Your task to perform on an android device: check google app version Image 0: 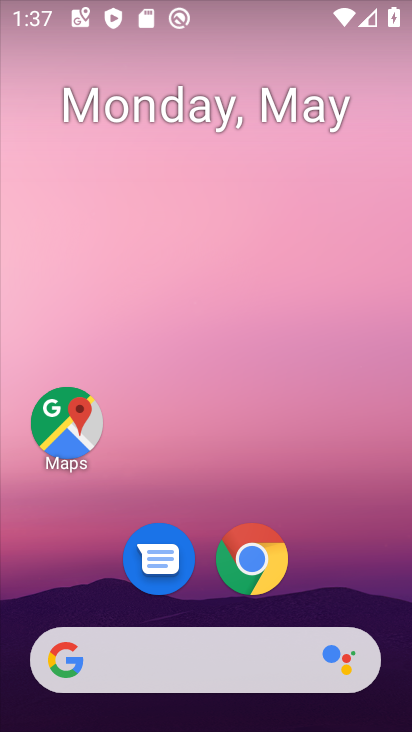
Step 0: drag from (337, 595) to (309, 134)
Your task to perform on an android device: check google app version Image 1: 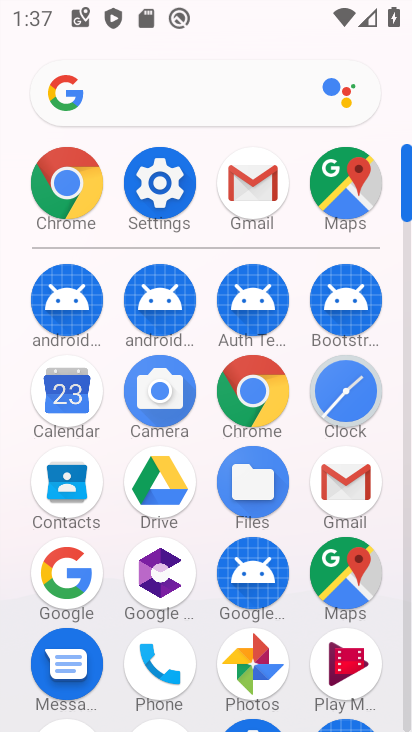
Step 1: click (73, 584)
Your task to perform on an android device: check google app version Image 2: 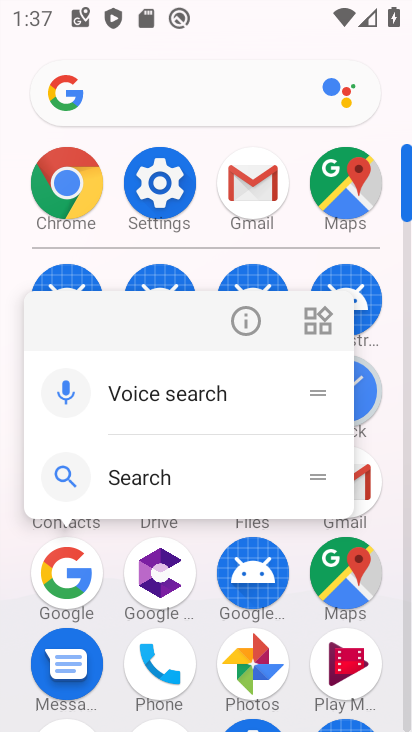
Step 2: click (250, 323)
Your task to perform on an android device: check google app version Image 3: 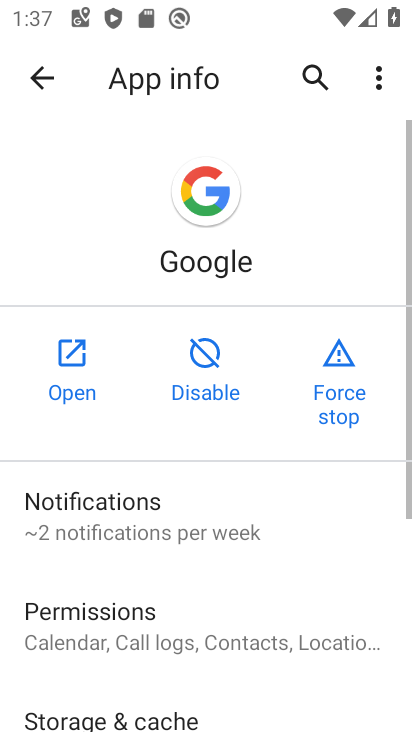
Step 3: drag from (203, 624) to (210, 56)
Your task to perform on an android device: check google app version Image 4: 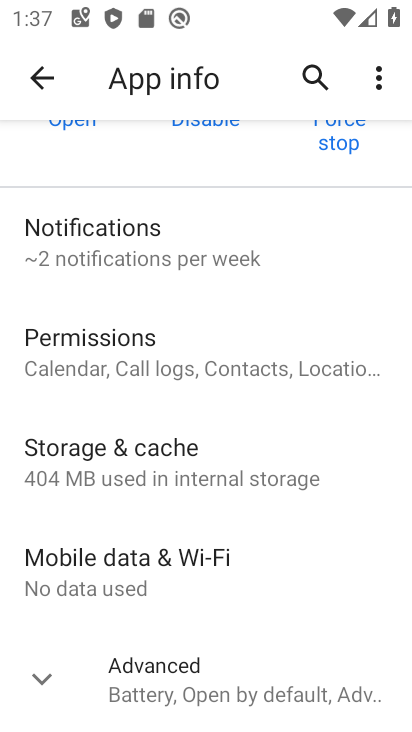
Step 4: drag from (196, 560) to (191, 191)
Your task to perform on an android device: check google app version Image 5: 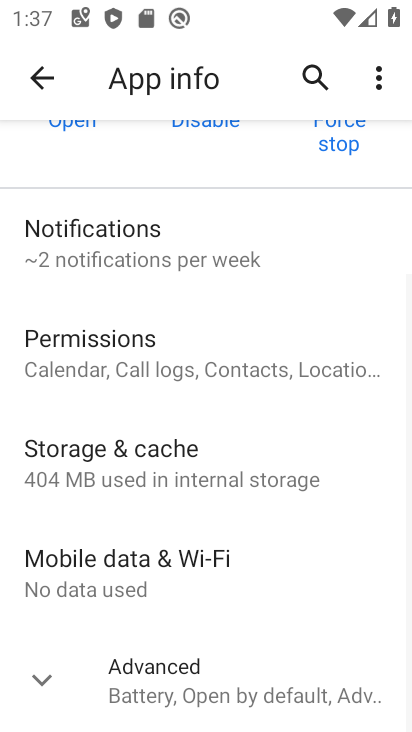
Step 5: click (128, 690)
Your task to perform on an android device: check google app version Image 6: 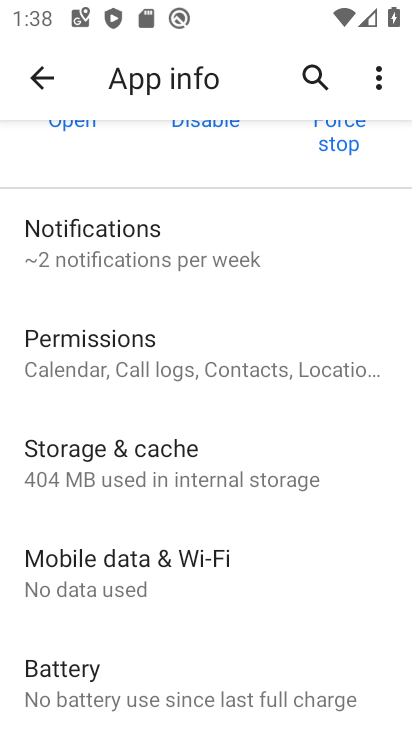
Step 6: task complete